Your task to perform on an android device: open sync settings in chrome Image 0: 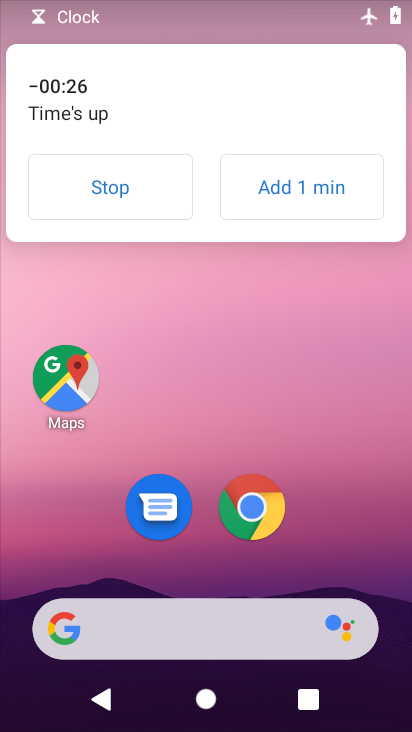
Step 0: press home button
Your task to perform on an android device: open sync settings in chrome Image 1: 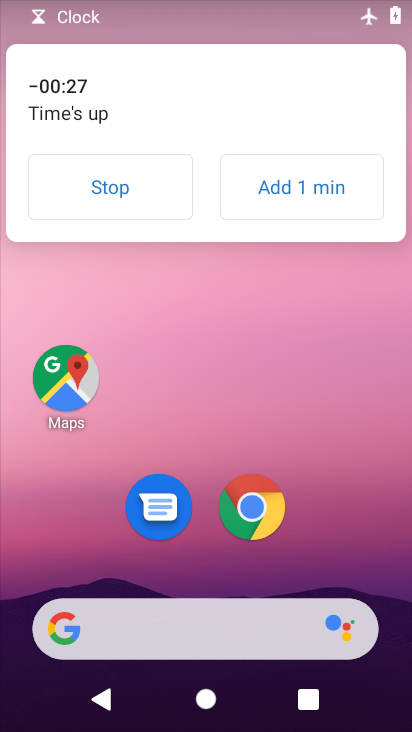
Step 1: click (129, 192)
Your task to perform on an android device: open sync settings in chrome Image 2: 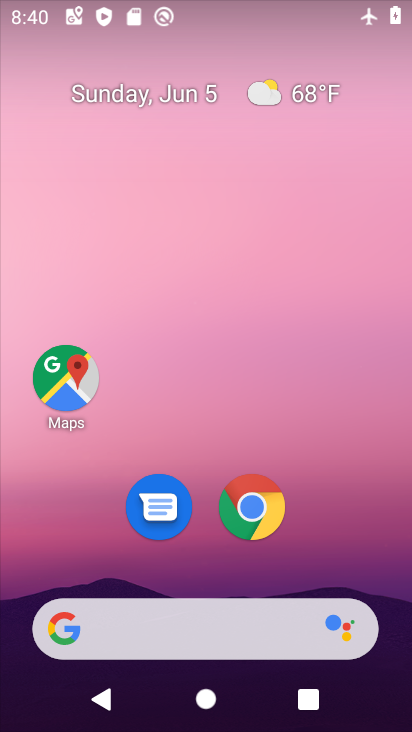
Step 2: click (265, 503)
Your task to perform on an android device: open sync settings in chrome Image 3: 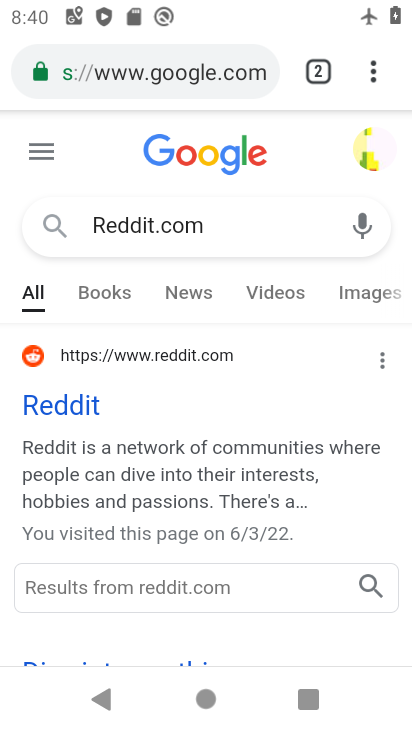
Step 3: click (377, 74)
Your task to perform on an android device: open sync settings in chrome Image 4: 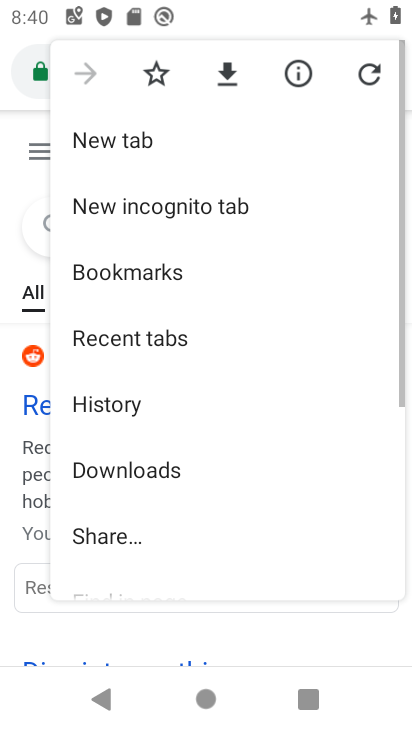
Step 4: drag from (175, 545) to (197, 187)
Your task to perform on an android device: open sync settings in chrome Image 5: 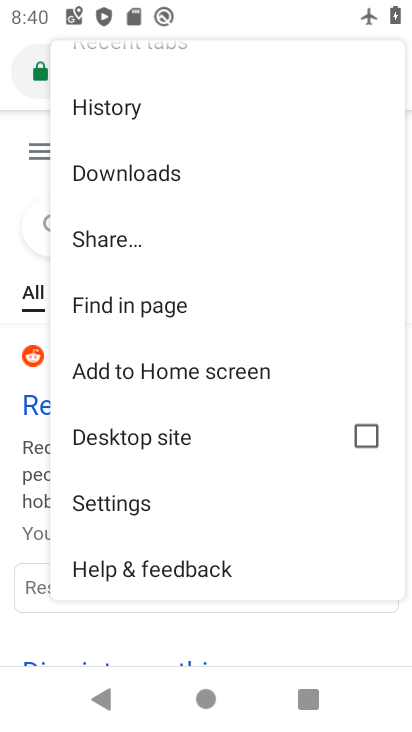
Step 5: click (124, 516)
Your task to perform on an android device: open sync settings in chrome Image 6: 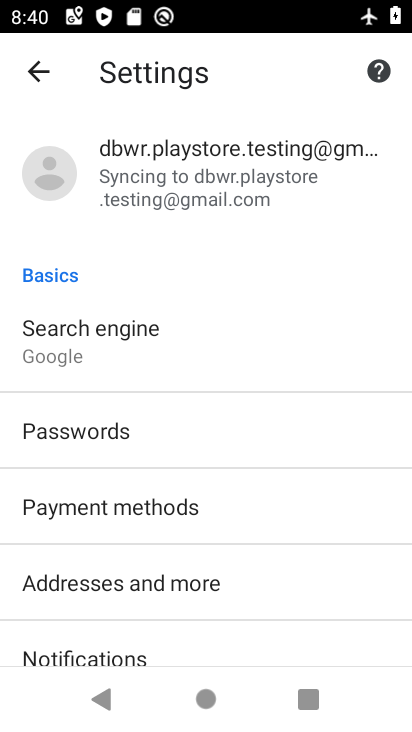
Step 6: click (230, 185)
Your task to perform on an android device: open sync settings in chrome Image 7: 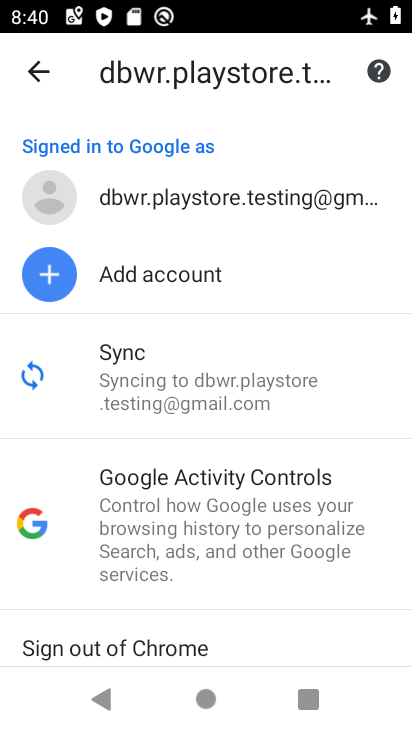
Step 7: click (189, 383)
Your task to perform on an android device: open sync settings in chrome Image 8: 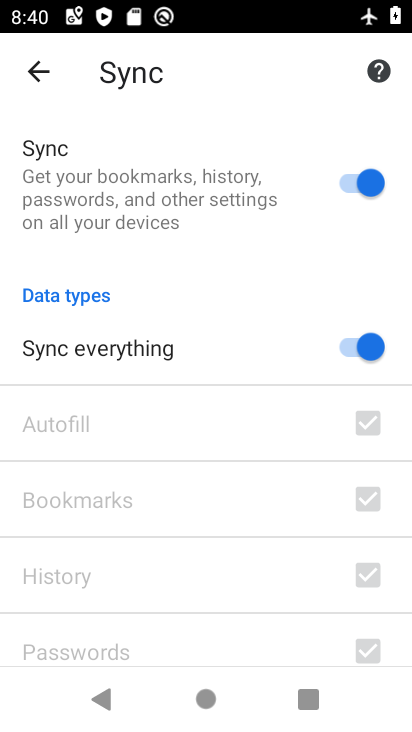
Step 8: task complete